Your task to perform on an android device: What's the weather? Image 0: 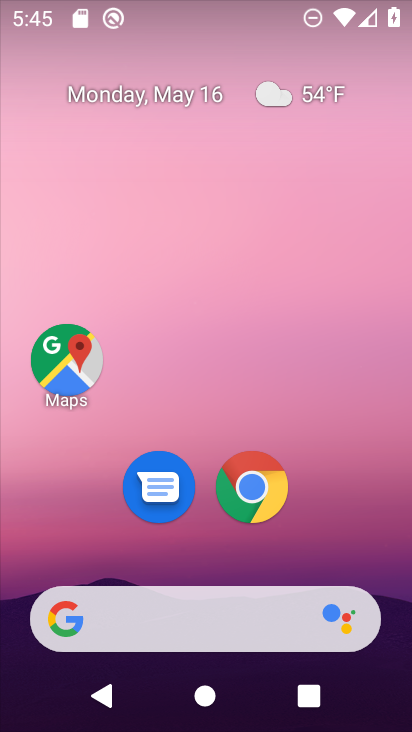
Step 0: drag from (186, 589) to (192, 209)
Your task to perform on an android device: What's the weather? Image 1: 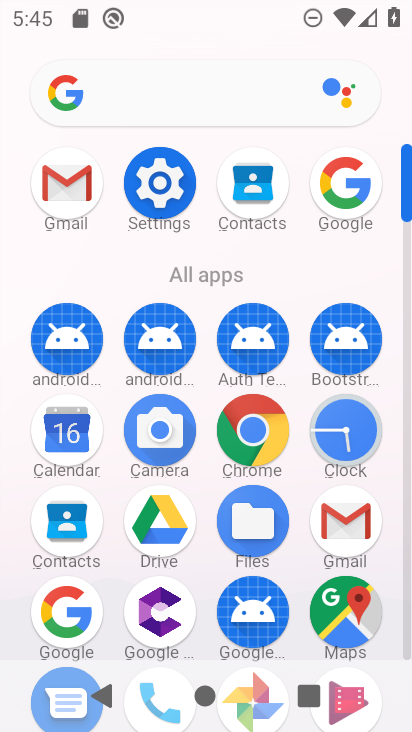
Step 1: click (56, 618)
Your task to perform on an android device: What's the weather? Image 2: 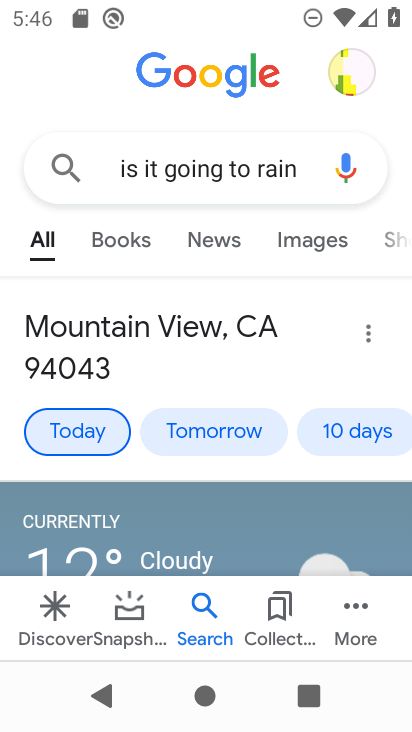
Step 2: task complete